Your task to perform on an android device: change the clock style Image 0: 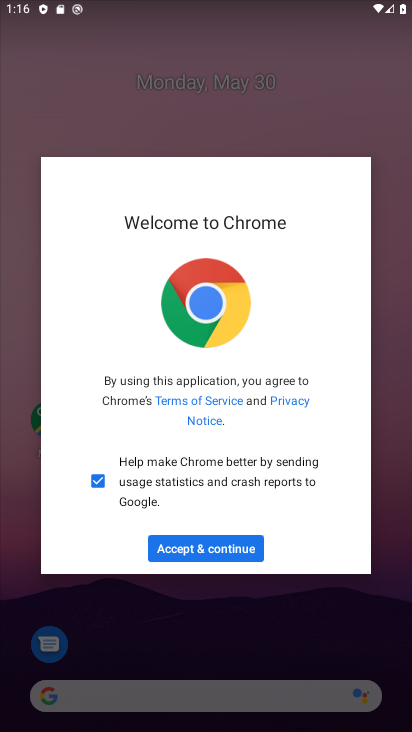
Step 0: drag from (285, 5) to (252, 563)
Your task to perform on an android device: change the clock style Image 1: 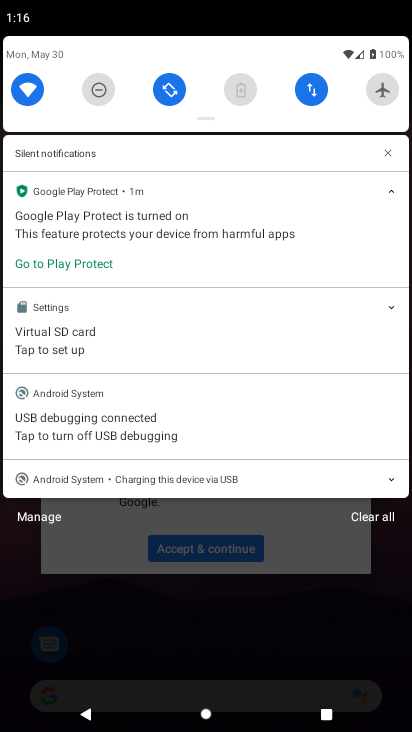
Step 1: press home button
Your task to perform on an android device: change the clock style Image 2: 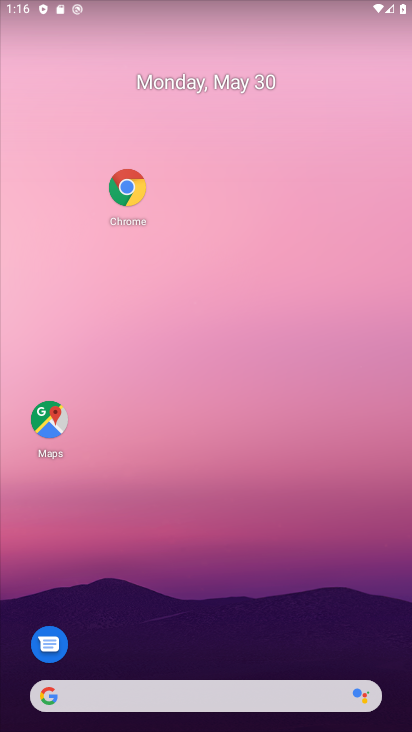
Step 2: drag from (155, 632) to (171, 112)
Your task to perform on an android device: change the clock style Image 3: 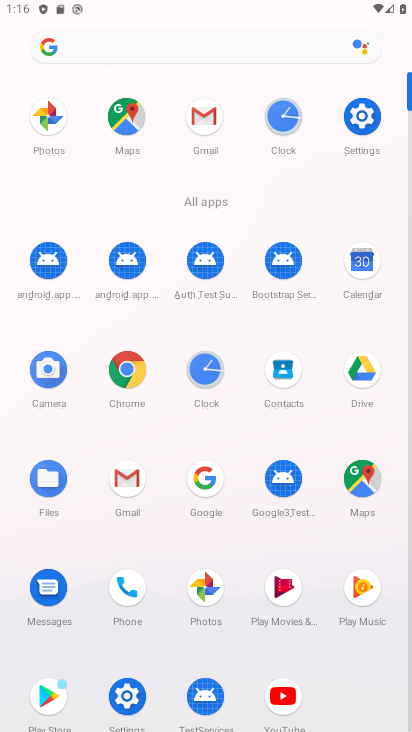
Step 3: click (287, 126)
Your task to perform on an android device: change the clock style Image 4: 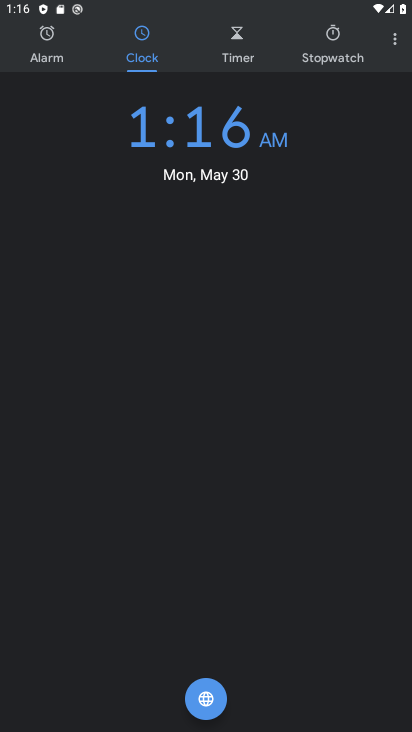
Step 4: click (402, 48)
Your task to perform on an android device: change the clock style Image 5: 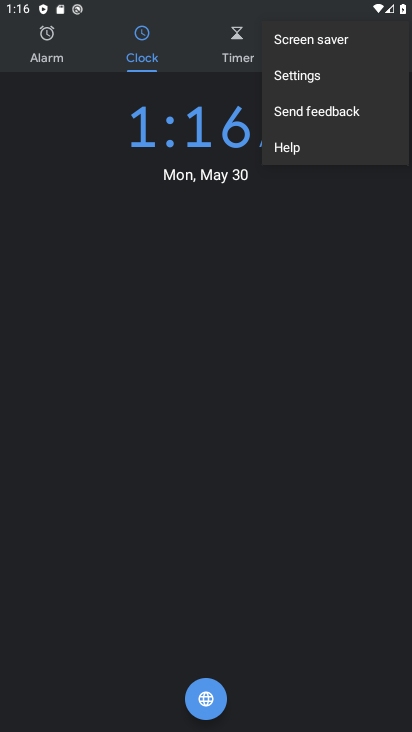
Step 5: click (302, 87)
Your task to perform on an android device: change the clock style Image 6: 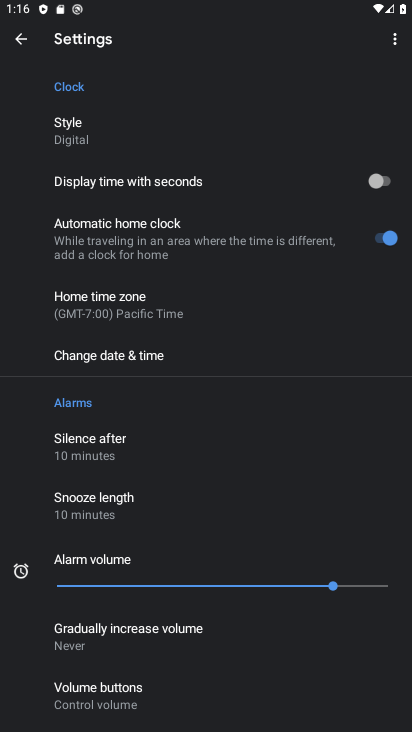
Step 6: click (138, 135)
Your task to perform on an android device: change the clock style Image 7: 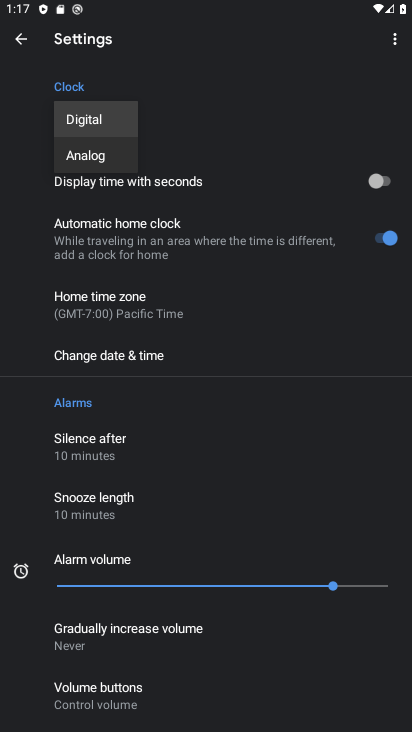
Step 7: click (118, 148)
Your task to perform on an android device: change the clock style Image 8: 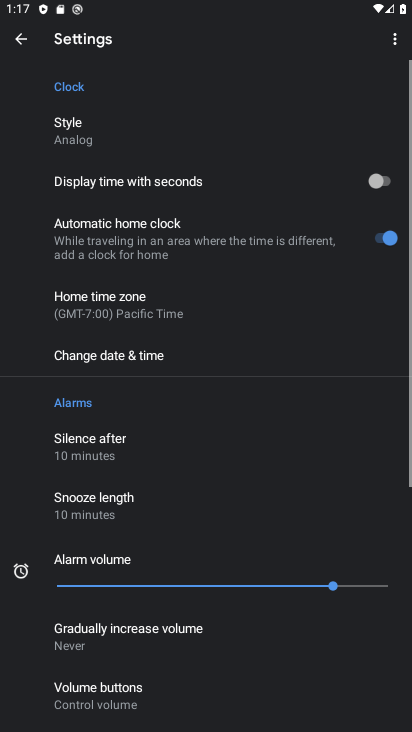
Step 8: task complete